Your task to perform on an android device: Open calendar and show me the first week of next month Image 0: 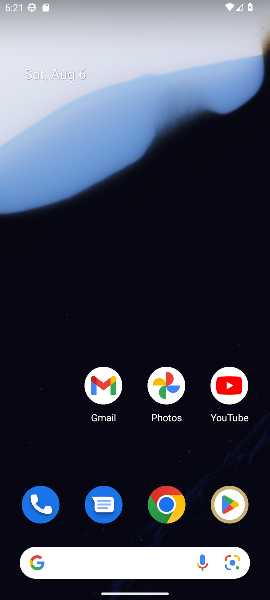
Step 0: drag from (91, 567) to (67, 136)
Your task to perform on an android device: Open calendar and show me the first week of next month Image 1: 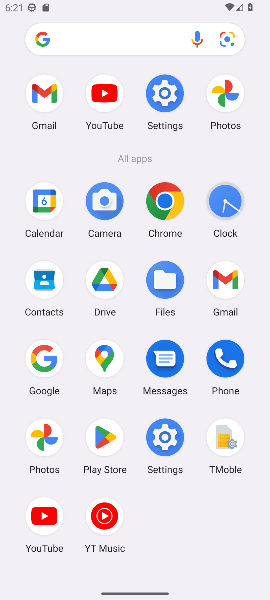
Step 1: click (46, 203)
Your task to perform on an android device: Open calendar and show me the first week of next month Image 2: 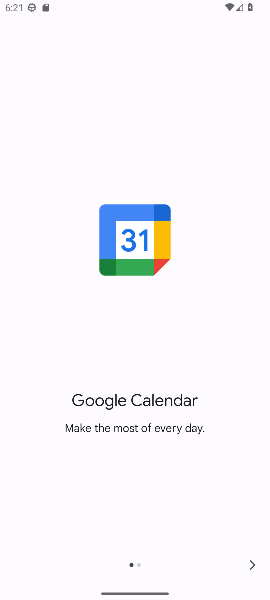
Step 2: click (250, 563)
Your task to perform on an android device: Open calendar and show me the first week of next month Image 3: 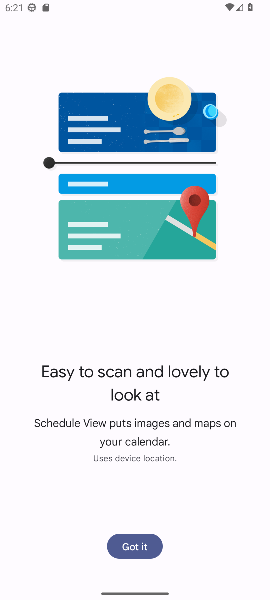
Step 3: click (142, 547)
Your task to perform on an android device: Open calendar and show me the first week of next month Image 4: 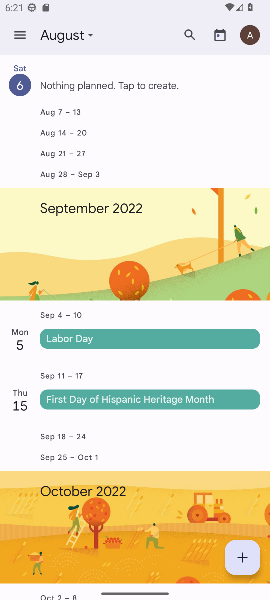
Step 4: click (86, 36)
Your task to perform on an android device: Open calendar and show me the first week of next month Image 5: 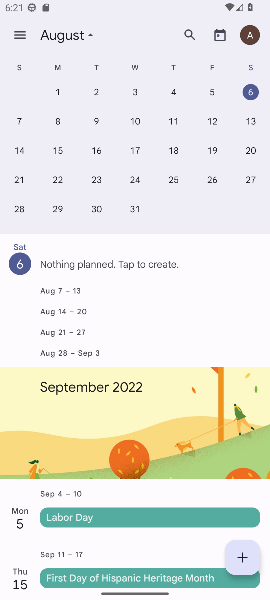
Step 5: drag from (246, 136) to (4, 117)
Your task to perform on an android device: Open calendar and show me the first week of next month Image 6: 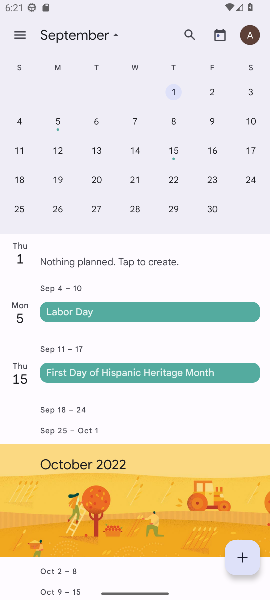
Step 6: click (55, 126)
Your task to perform on an android device: Open calendar and show me the first week of next month Image 7: 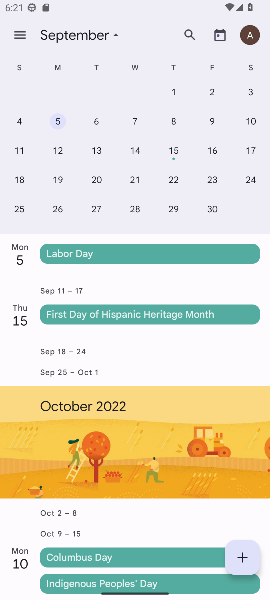
Step 7: click (13, 29)
Your task to perform on an android device: Open calendar and show me the first week of next month Image 8: 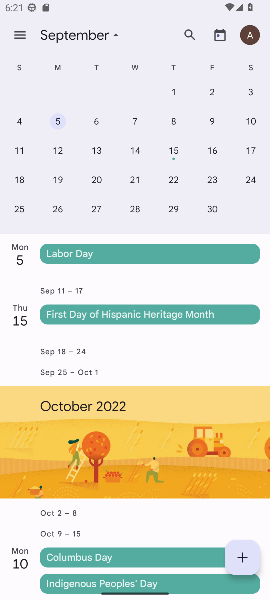
Step 8: click (17, 34)
Your task to perform on an android device: Open calendar and show me the first week of next month Image 9: 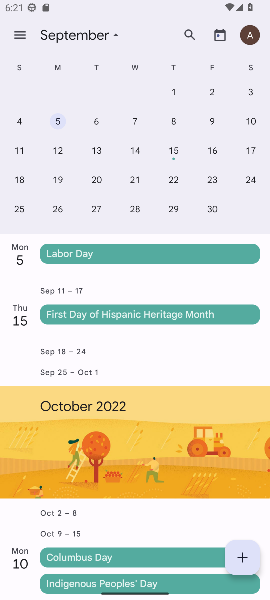
Step 9: click (19, 35)
Your task to perform on an android device: Open calendar and show me the first week of next month Image 10: 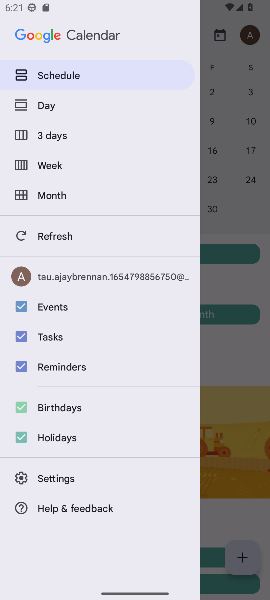
Step 10: click (44, 165)
Your task to perform on an android device: Open calendar and show me the first week of next month Image 11: 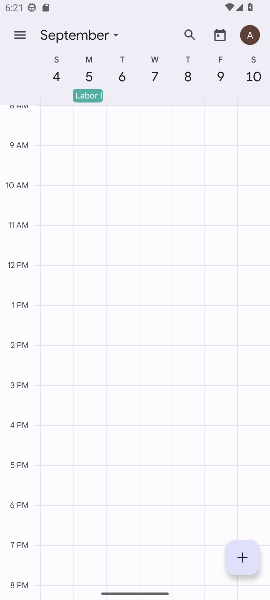
Step 11: task complete